Your task to perform on an android device: Search for sushi restaurants on Maps Image 0: 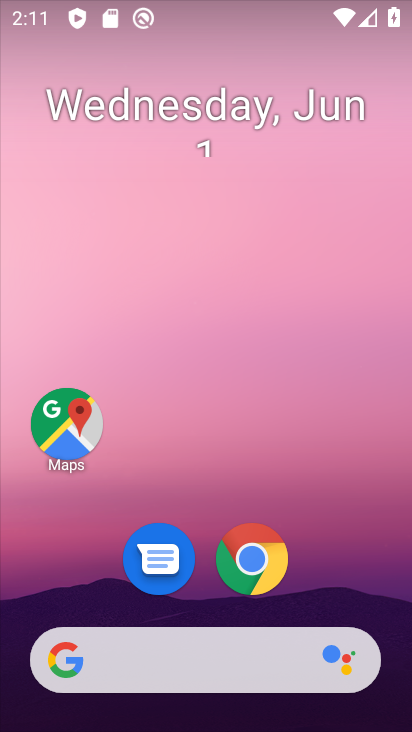
Step 0: task complete